Your task to perform on an android device: turn off data saver in the chrome app Image 0: 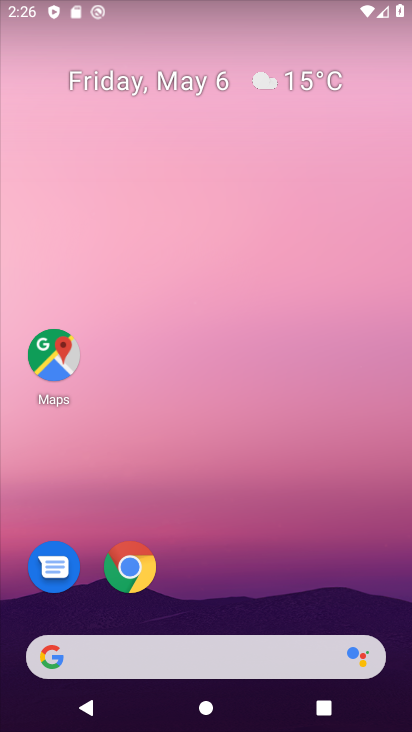
Step 0: click (132, 548)
Your task to perform on an android device: turn off data saver in the chrome app Image 1: 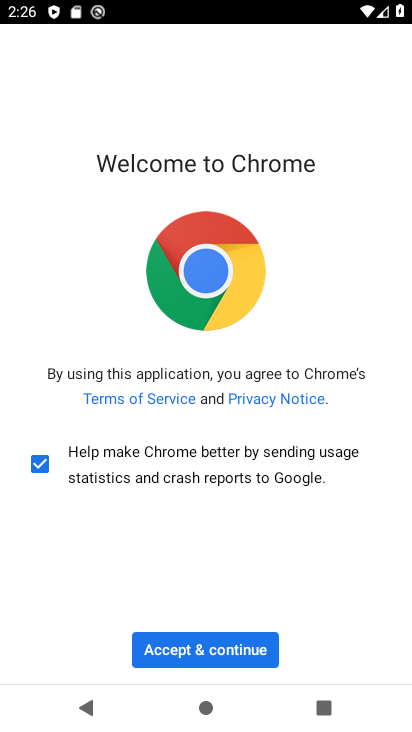
Step 1: click (219, 661)
Your task to perform on an android device: turn off data saver in the chrome app Image 2: 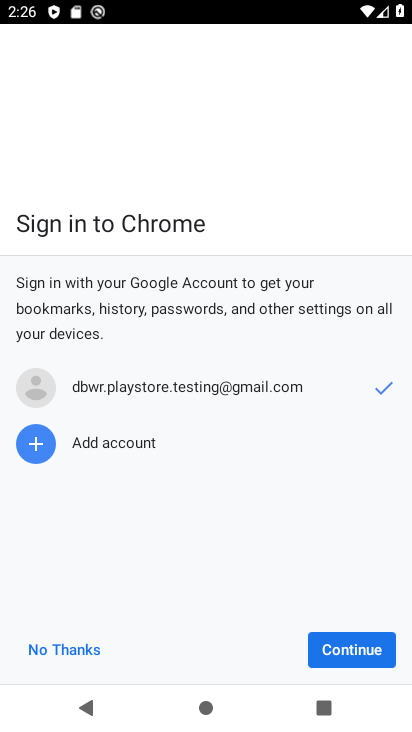
Step 2: click (375, 654)
Your task to perform on an android device: turn off data saver in the chrome app Image 3: 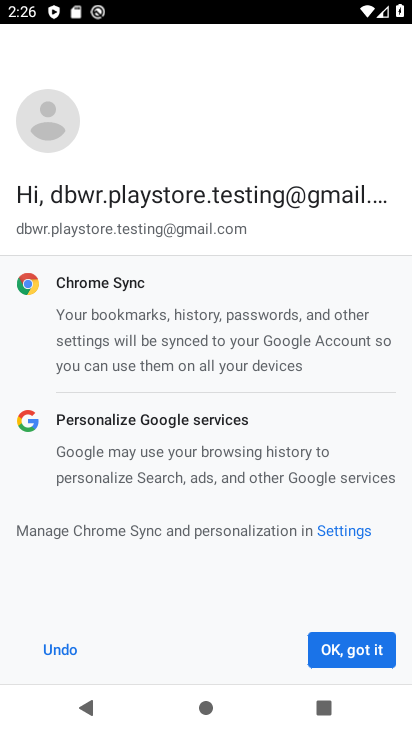
Step 3: click (375, 654)
Your task to perform on an android device: turn off data saver in the chrome app Image 4: 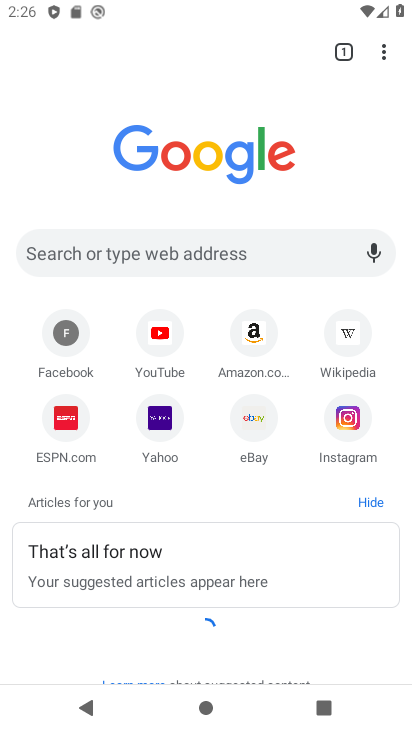
Step 4: drag from (390, 54) to (334, 436)
Your task to perform on an android device: turn off data saver in the chrome app Image 5: 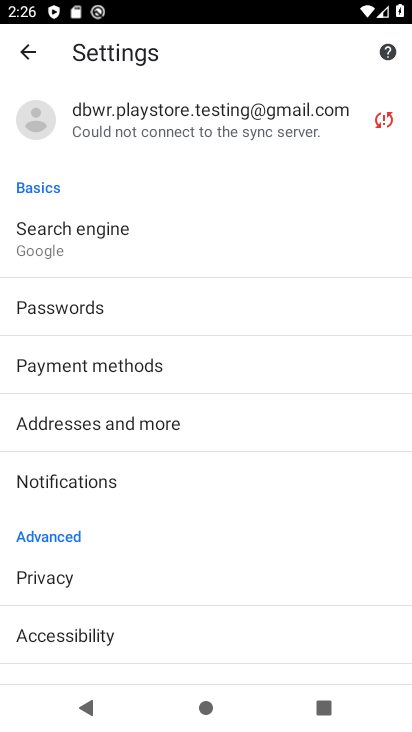
Step 5: drag from (146, 618) to (241, 276)
Your task to perform on an android device: turn off data saver in the chrome app Image 6: 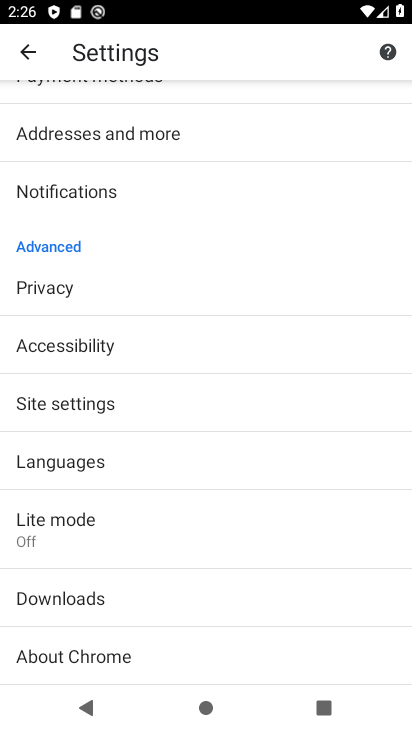
Step 6: click (138, 535)
Your task to perform on an android device: turn off data saver in the chrome app Image 7: 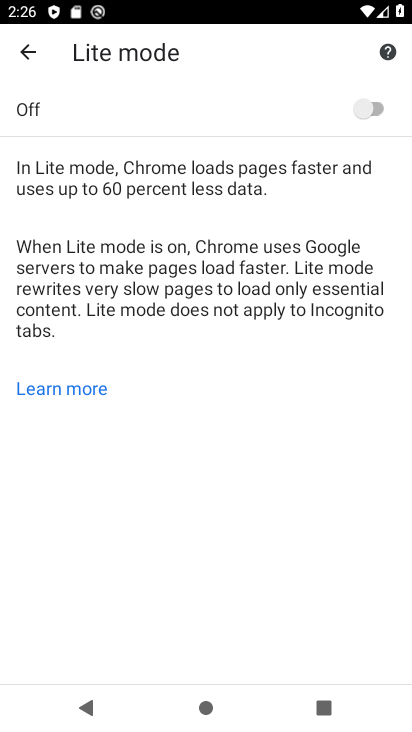
Step 7: task complete